Your task to perform on an android device: Is it going to rain tomorrow? Image 0: 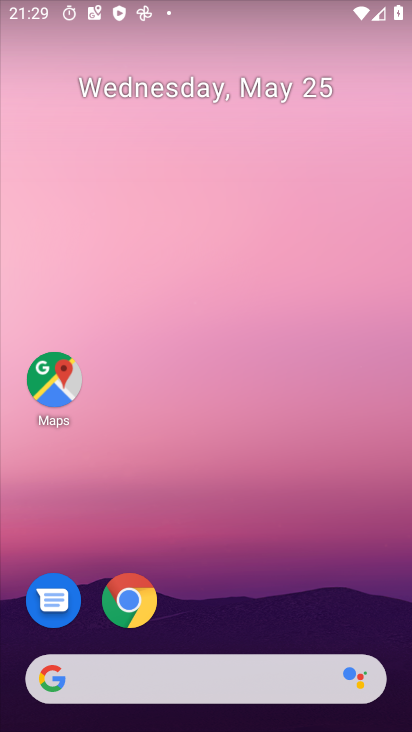
Step 0: drag from (288, 615) to (373, 217)
Your task to perform on an android device: Is it going to rain tomorrow? Image 1: 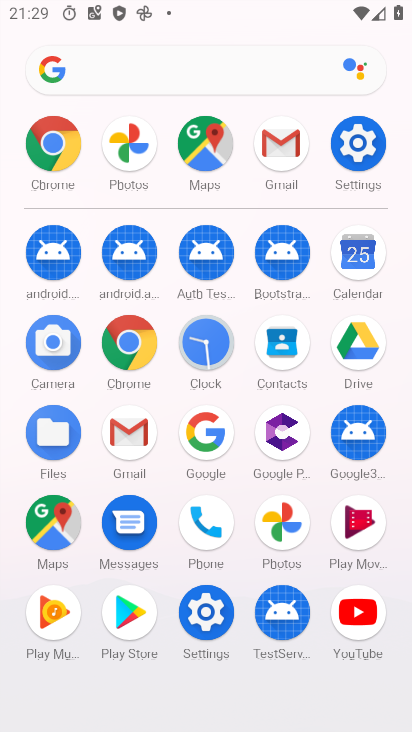
Step 1: click (138, 344)
Your task to perform on an android device: Is it going to rain tomorrow? Image 2: 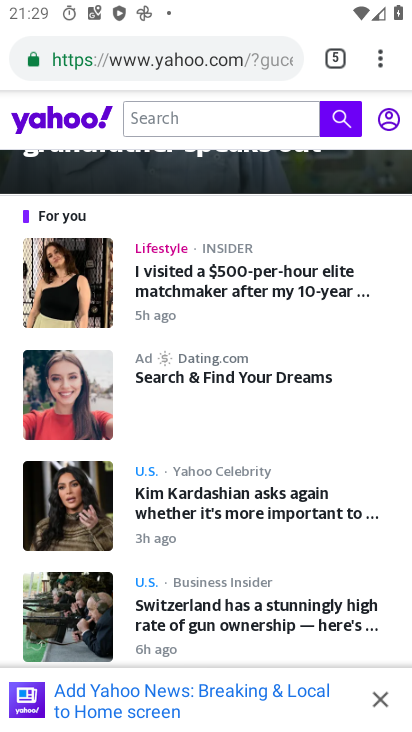
Step 2: click (204, 70)
Your task to perform on an android device: Is it going to rain tomorrow? Image 3: 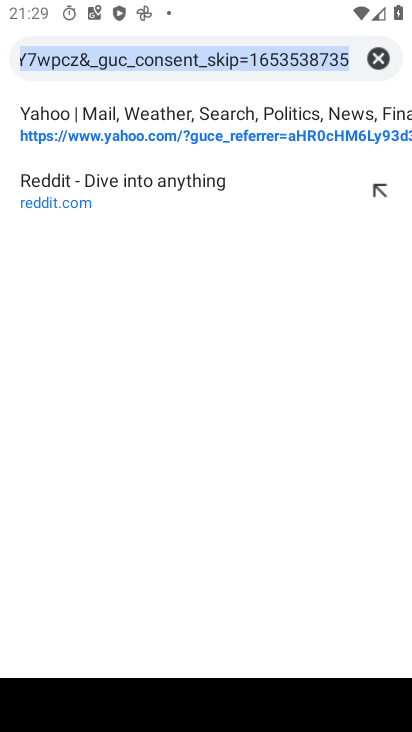
Step 3: click (378, 62)
Your task to perform on an android device: Is it going to rain tomorrow? Image 4: 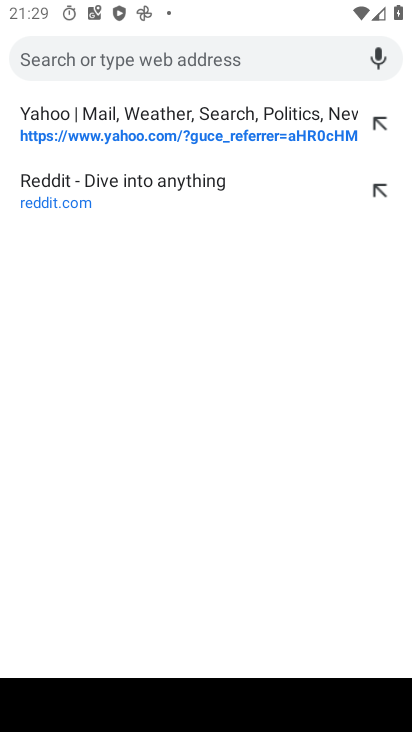
Step 4: type "is it going to rain tomorrow"
Your task to perform on an android device: Is it going to rain tomorrow? Image 5: 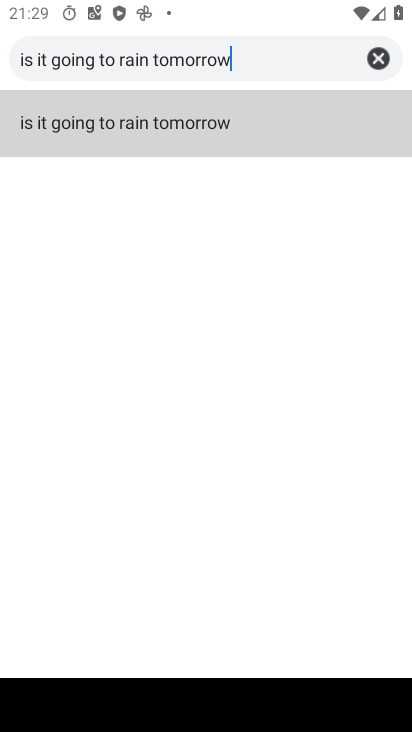
Step 5: click (205, 130)
Your task to perform on an android device: Is it going to rain tomorrow? Image 6: 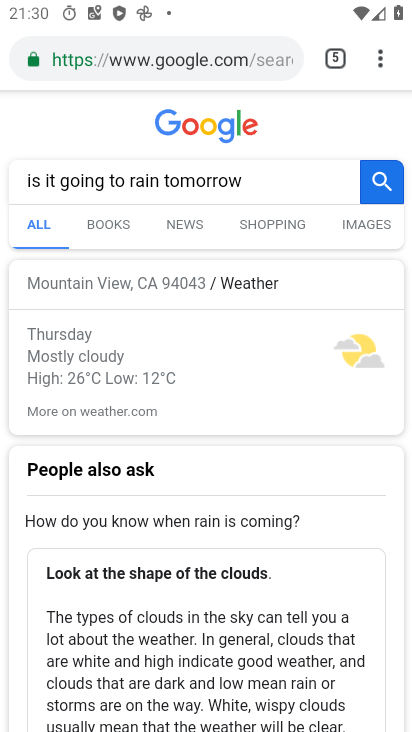
Step 6: task complete